Your task to perform on an android device: turn vacation reply on in the gmail app Image 0: 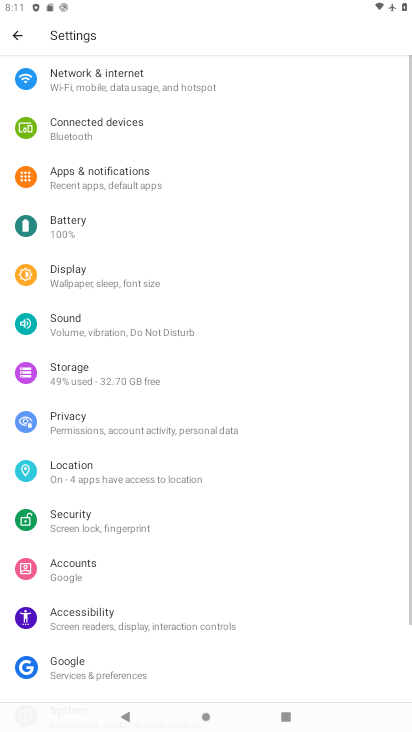
Step 0: press back button
Your task to perform on an android device: turn vacation reply on in the gmail app Image 1: 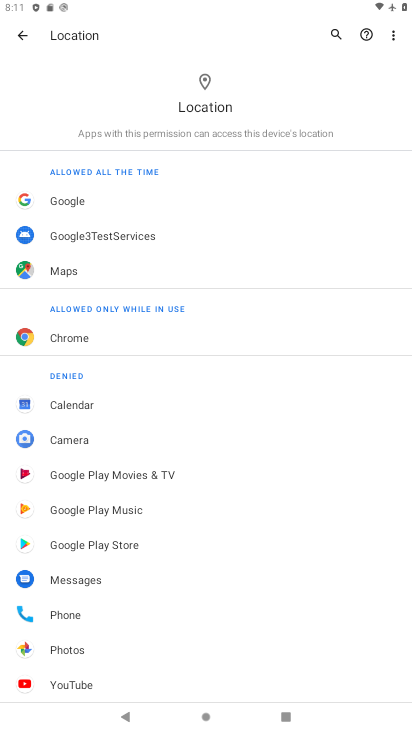
Step 1: press home button
Your task to perform on an android device: turn vacation reply on in the gmail app Image 2: 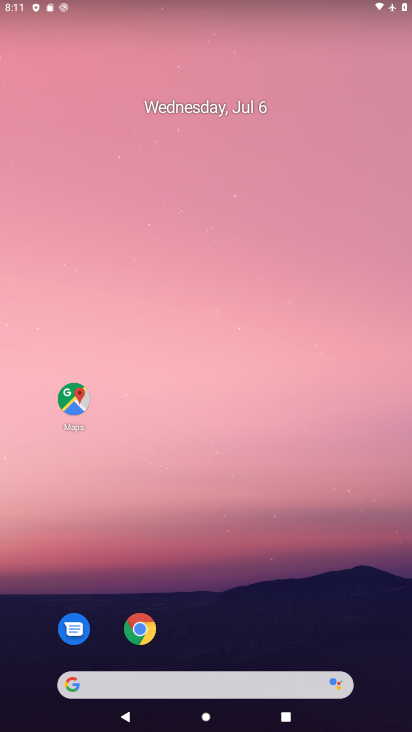
Step 2: drag from (317, 658) to (220, 158)
Your task to perform on an android device: turn vacation reply on in the gmail app Image 3: 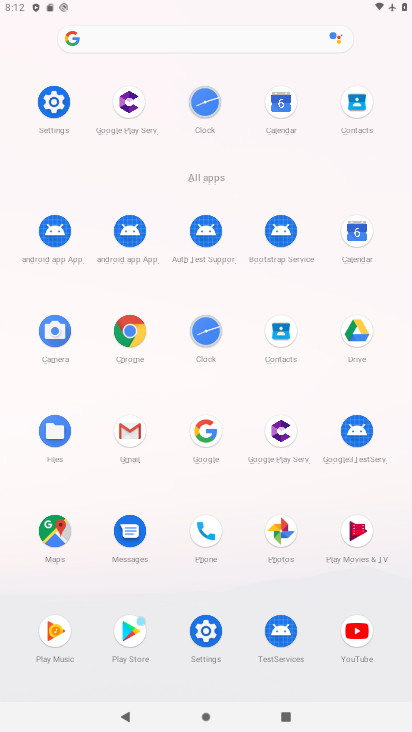
Step 3: click (130, 433)
Your task to perform on an android device: turn vacation reply on in the gmail app Image 4: 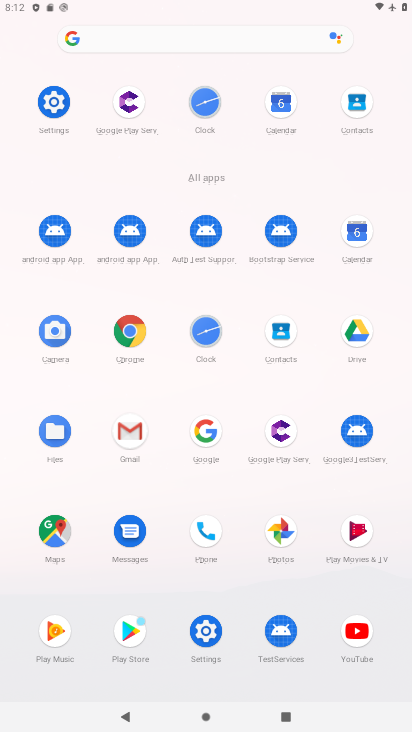
Step 4: click (130, 433)
Your task to perform on an android device: turn vacation reply on in the gmail app Image 5: 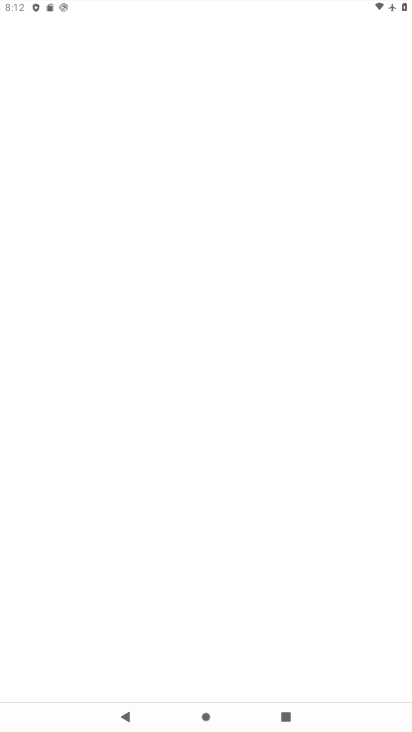
Step 5: click (132, 440)
Your task to perform on an android device: turn vacation reply on in the gmail app Image 6: 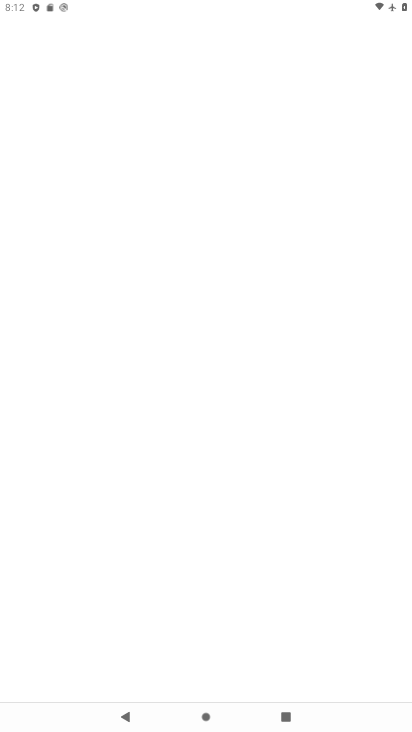
Step 6: click (132, 434)
Your task to perform on an android device: turn vacation reply on in the gmail app Image 7: 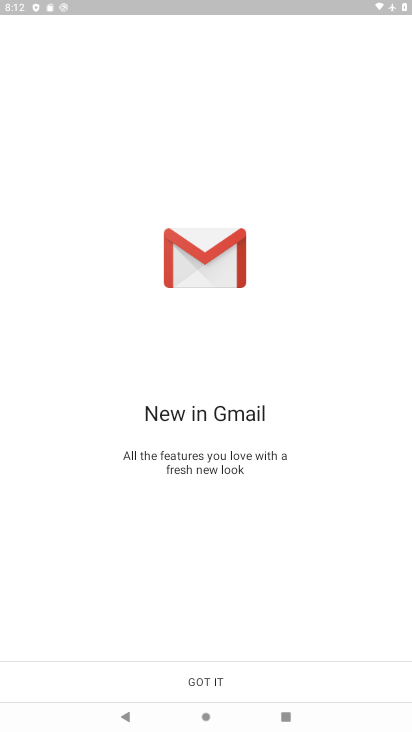
Step 7: click (205, 681)
Your task to perform on an android device: turn vacation reply on in the gmail app Image 8: 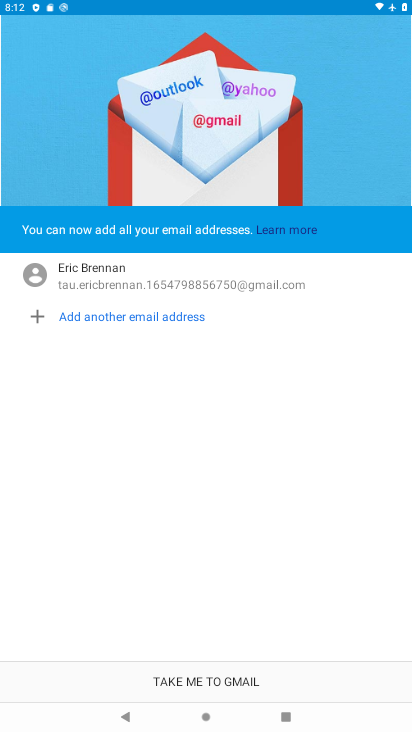
Step 8: click (207, 679)
Your task to perform on an android device: turn vacation reply on in the gmail app Image 9: 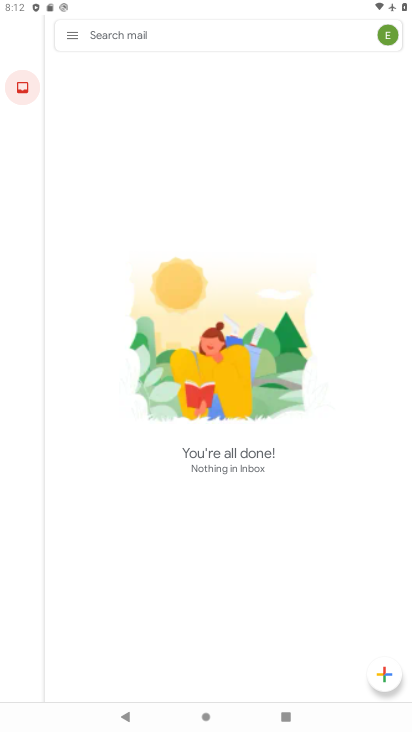
Step 9: click (69, 34)
Your task to perform on an android device: turn vacation reply on in the gmail app Image 10: 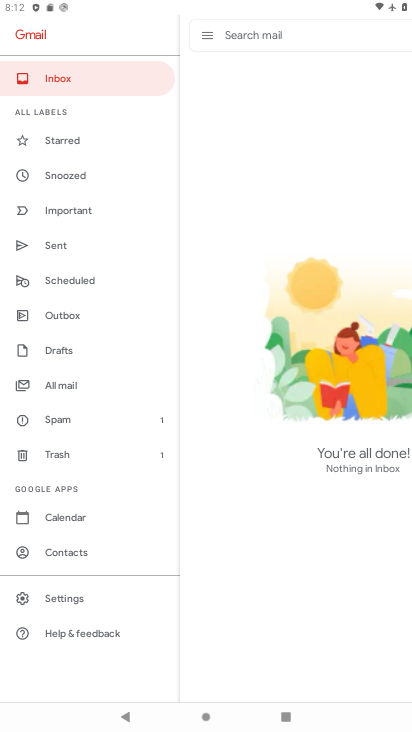
Step 10: click (68, 596)
Your task to perform on an android device: turn vacation reply on in the gmail app Image 11: 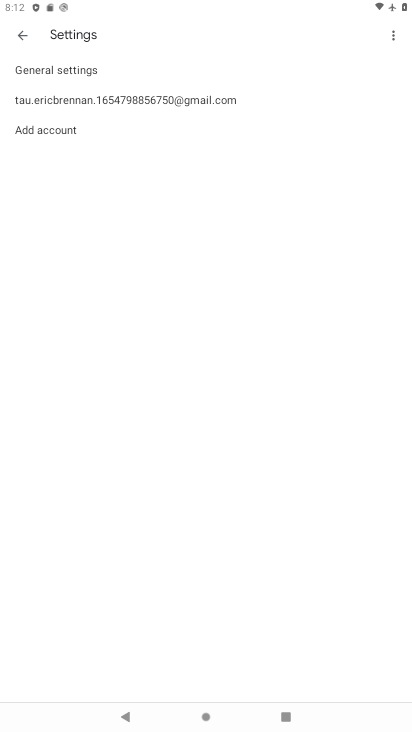
Step 11: click (69, 100)
Your task to perform on an android device: turn vacation reply on in the gmail app Image 12: 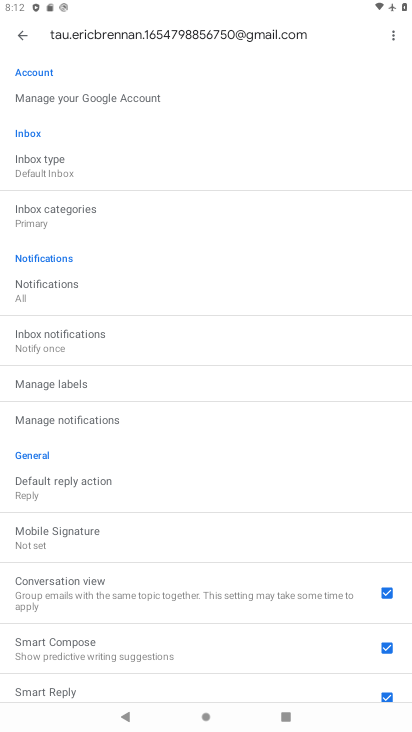
Step 12: drag from (80, 551) to (19, 160)
Your task to perform on an android device: turn vacation reply on in the gmail app Image 13: 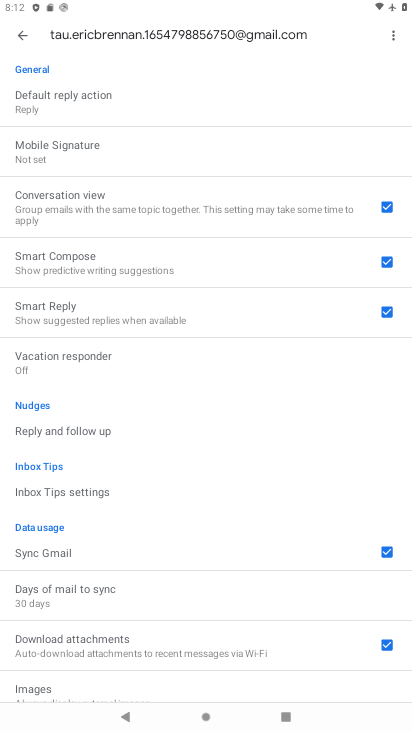
Step 13: click (100, 352)
Your task to perform on an android device: turn vacation reply on in the gmail app Image 14: 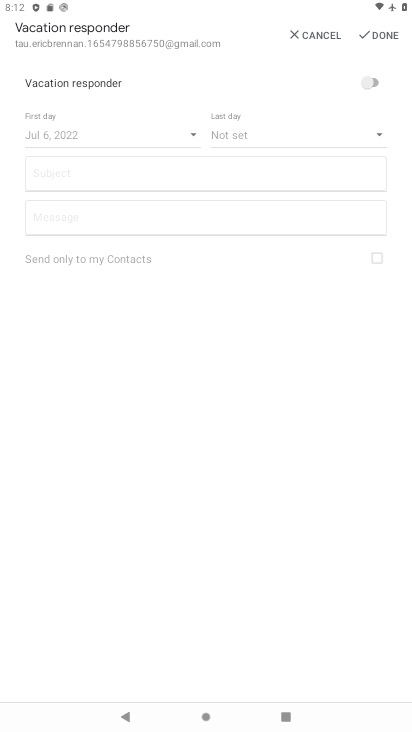
Step 14: click (365, 78)
Your task to perform on an android device: turn vacation reply on in the gmail app Image 15: 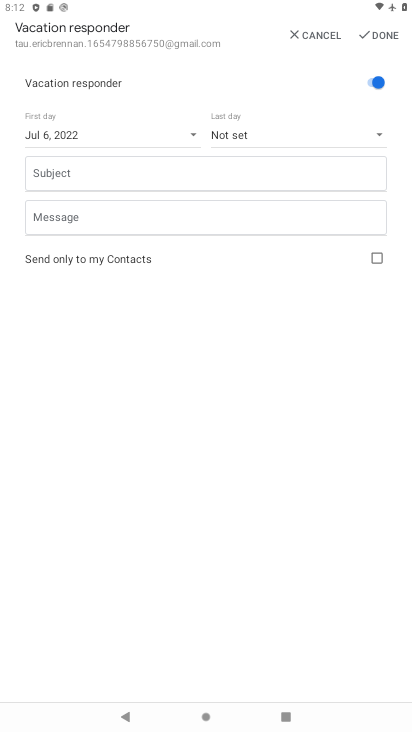
Step 15: task complete